Your task to perform on an android device: Add "razer blade" to the cart on ebay.com Image 0: 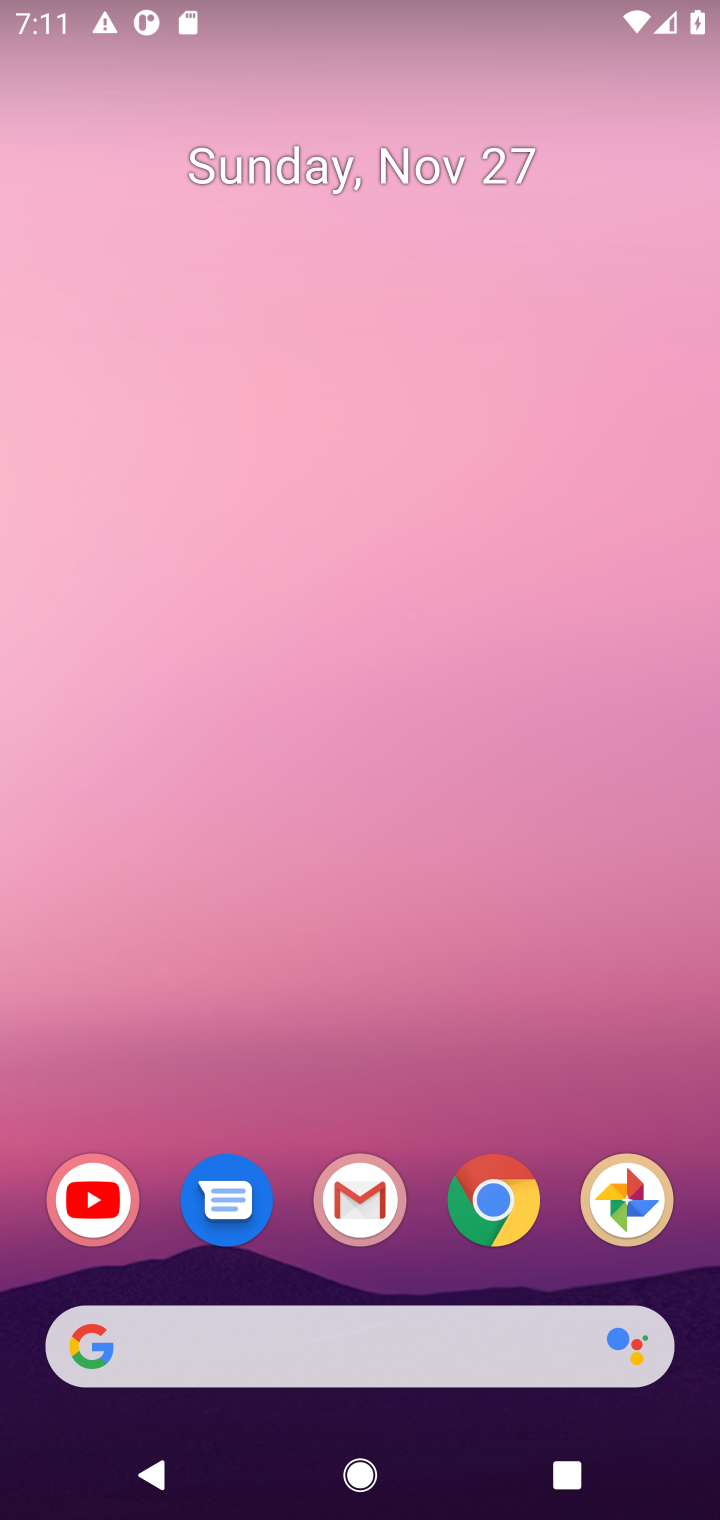
Step 0: click (493, 1201)
Your task to perform on an android device: Add "razer blade" to the cart on ebay.com Image 1: 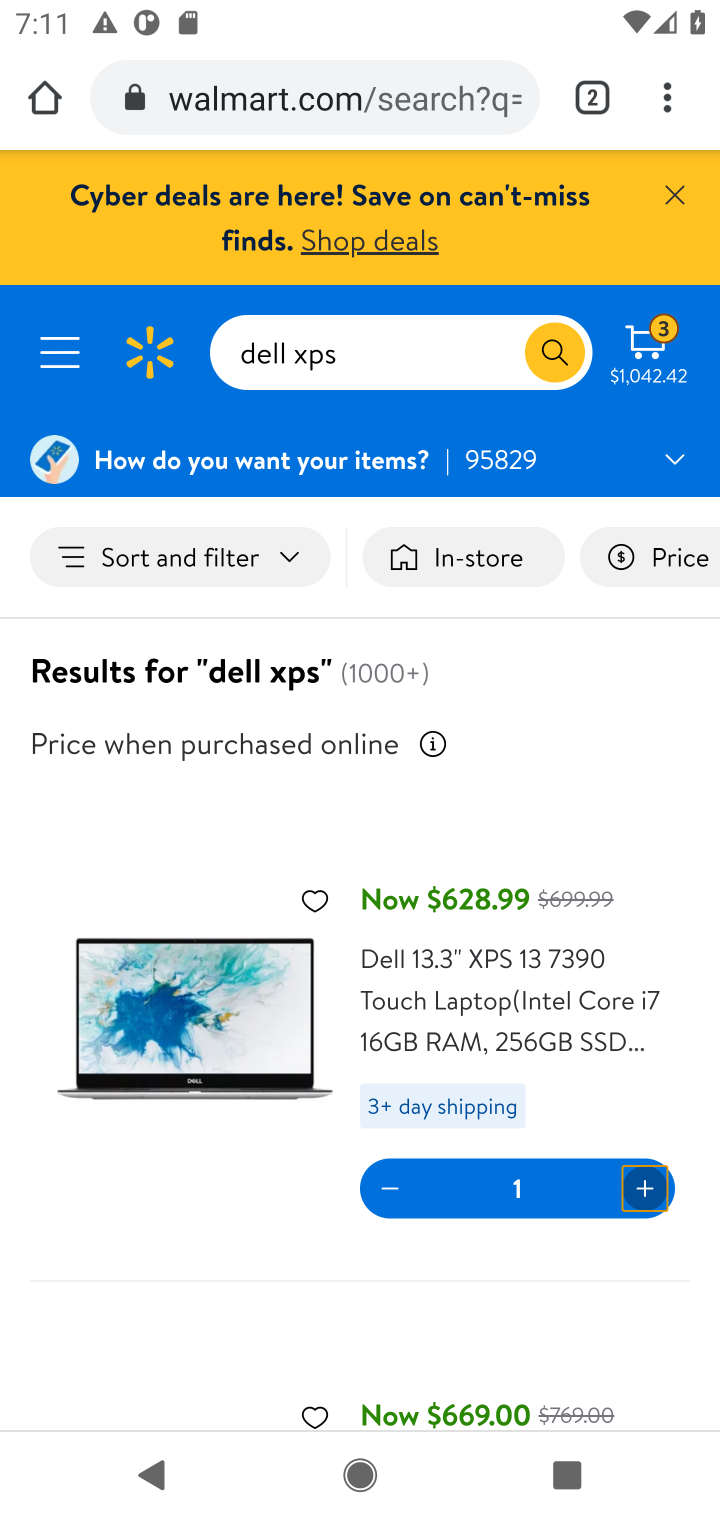
Step 1: click (278, 97)
Your task to perform on an android device: Add "razer blade" to the cart on ebay.com Image 2: 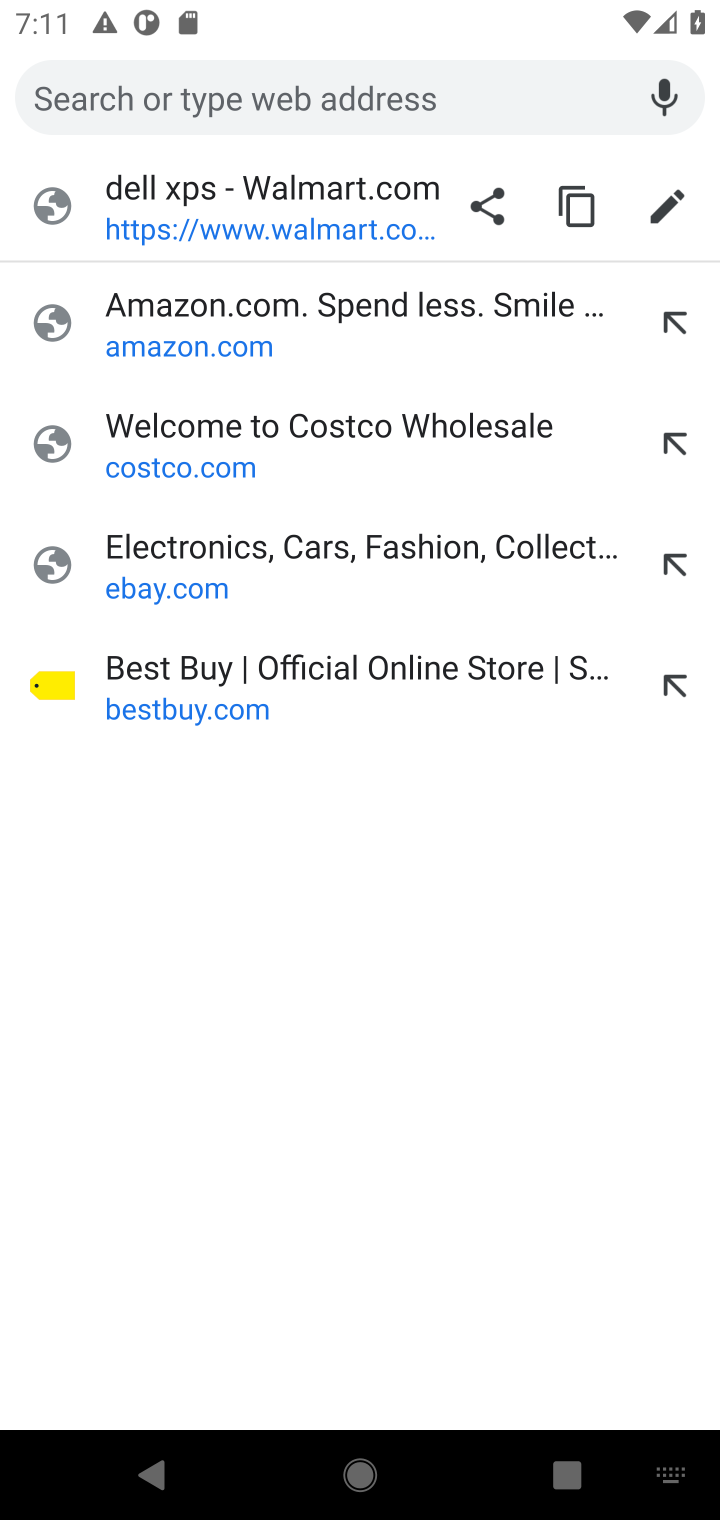
Step 2: click (130, 561)
Your task to perform on an android device: Add "razer blade" to the cart on ebay.com Image 3: 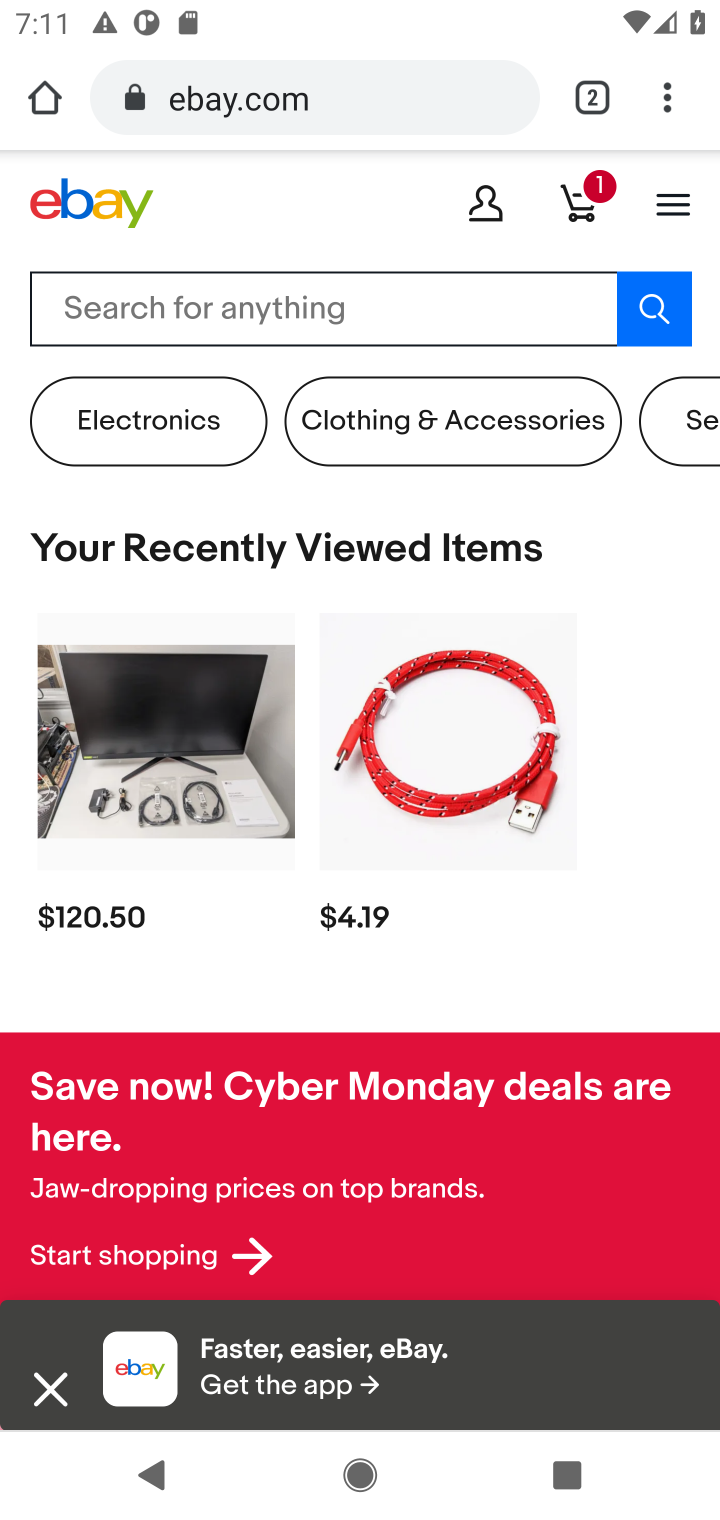
Step 3: click (123, 294)
Your task to perform on an android device: Add "razer blade" to the cart on ebay.com Image 4: 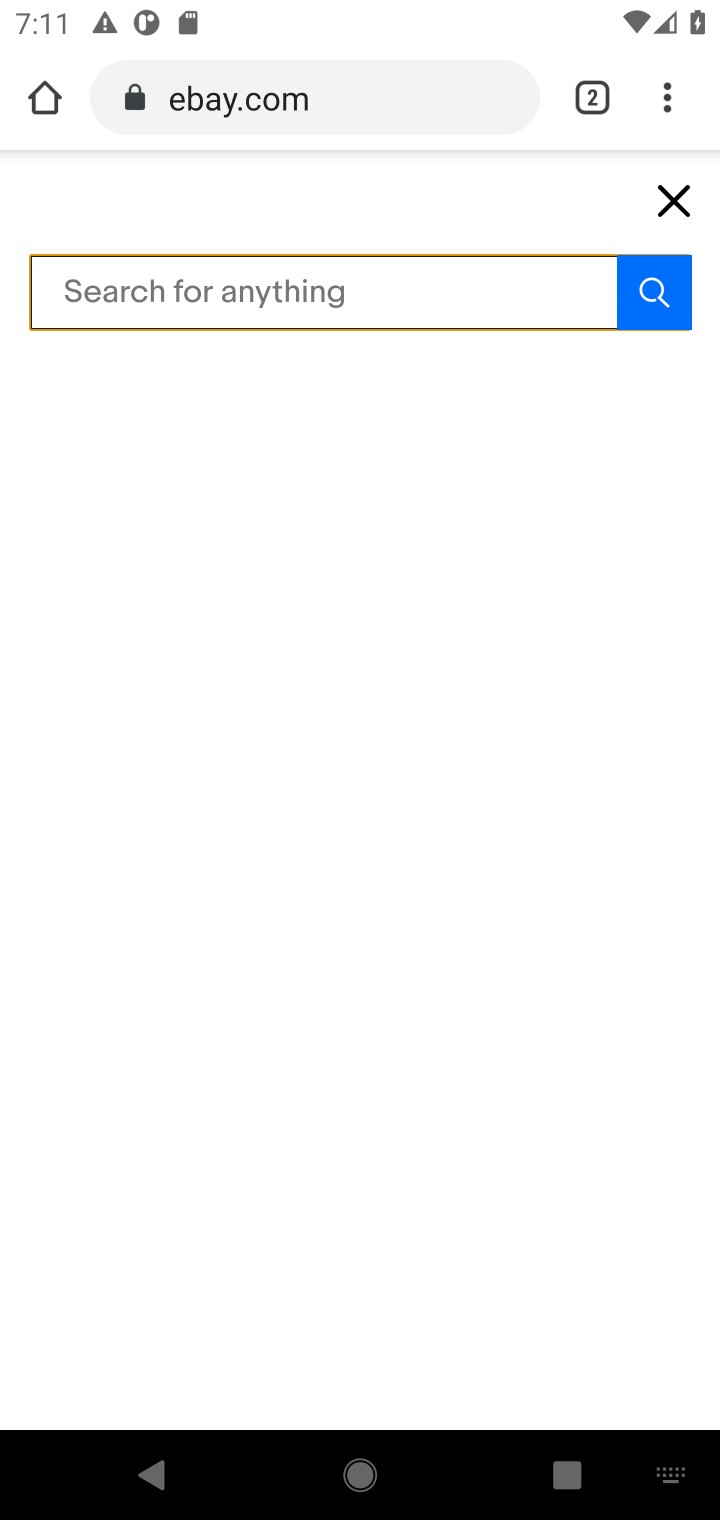
Step 4: type "razer blade"
Your task to perform on an android device: Add "razer blade" to the cart on ebay.com Image 5: 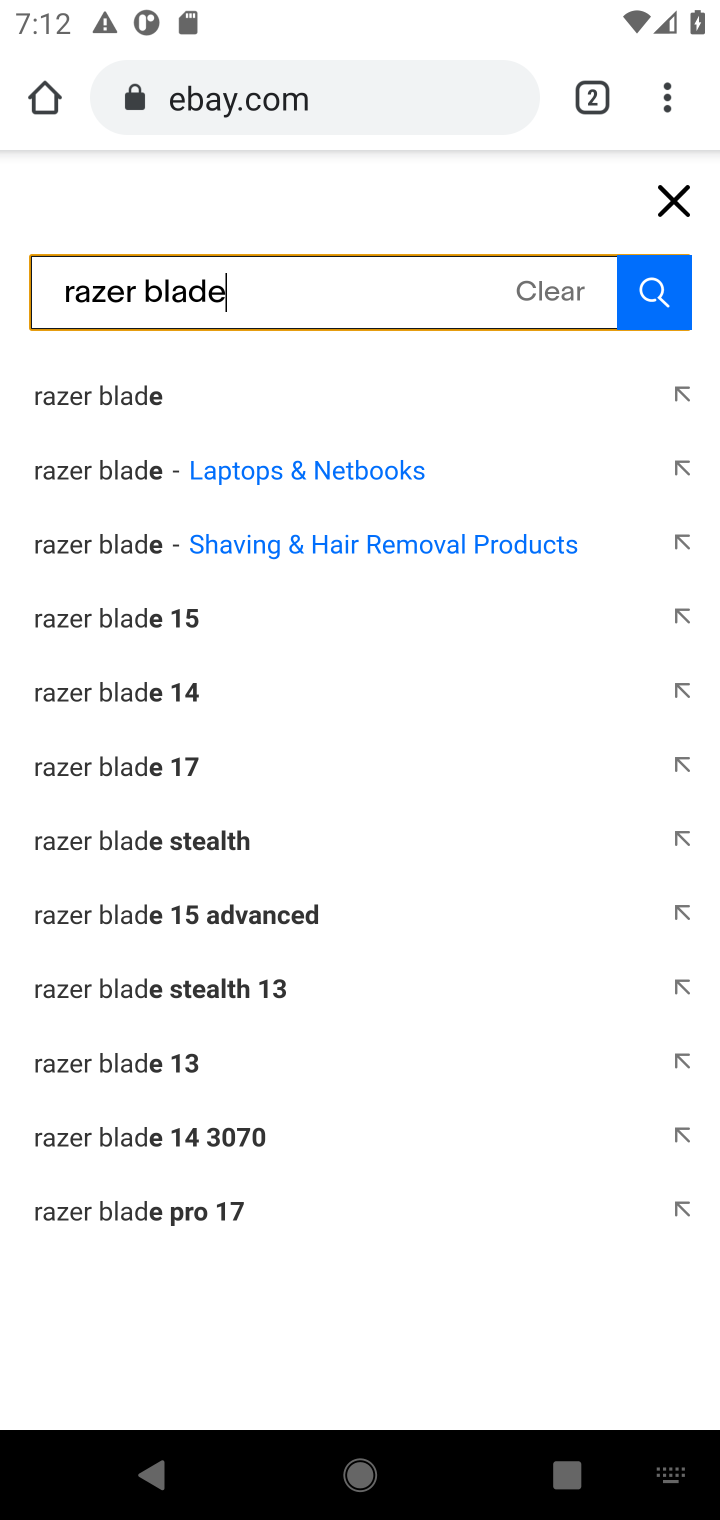
Step 5: click (63, 409)
Your task to perform on an android device: Add "razer blade" to the cart on ebay.com Image 6: 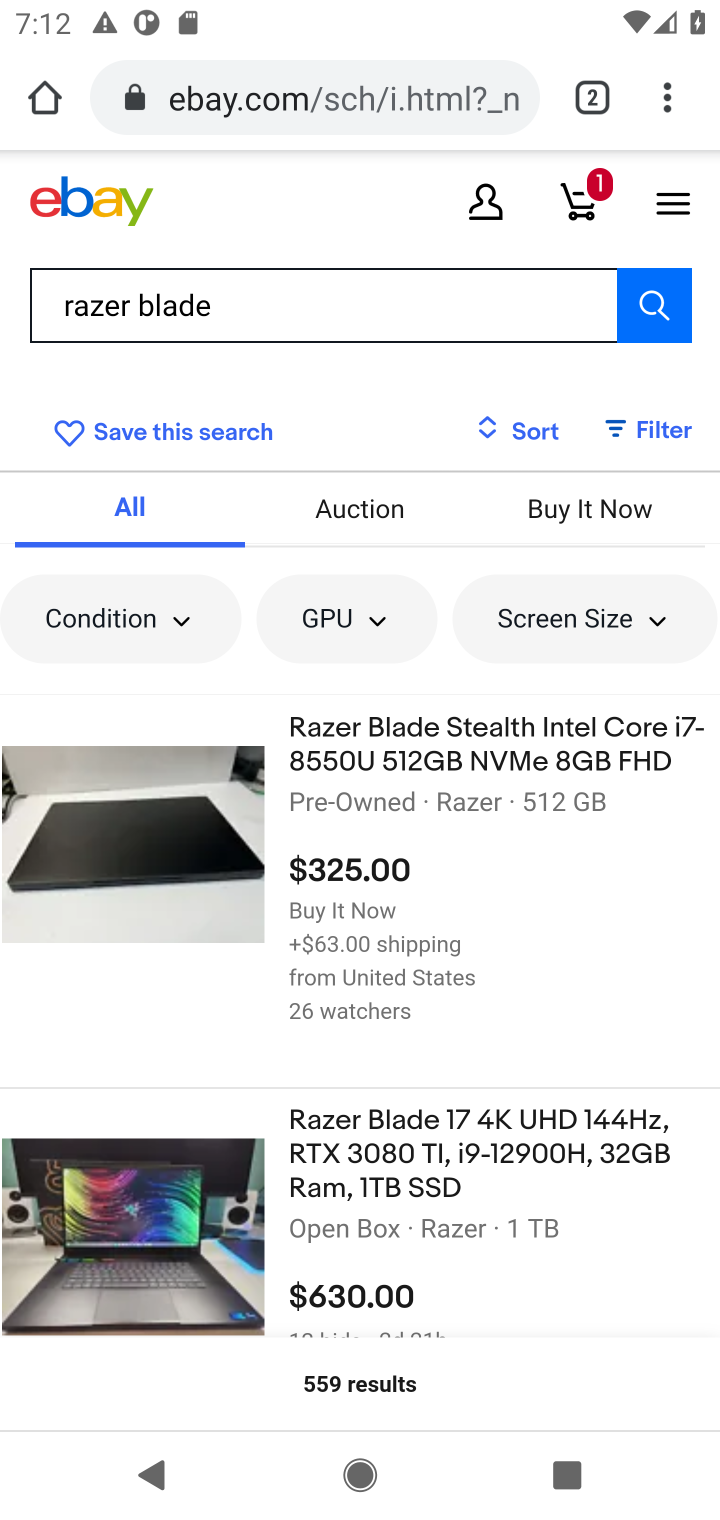
Step 6: click (145, 858)
Your task to perform on an android device: Add "razer blade" to the cart on ebay.com Image 7: 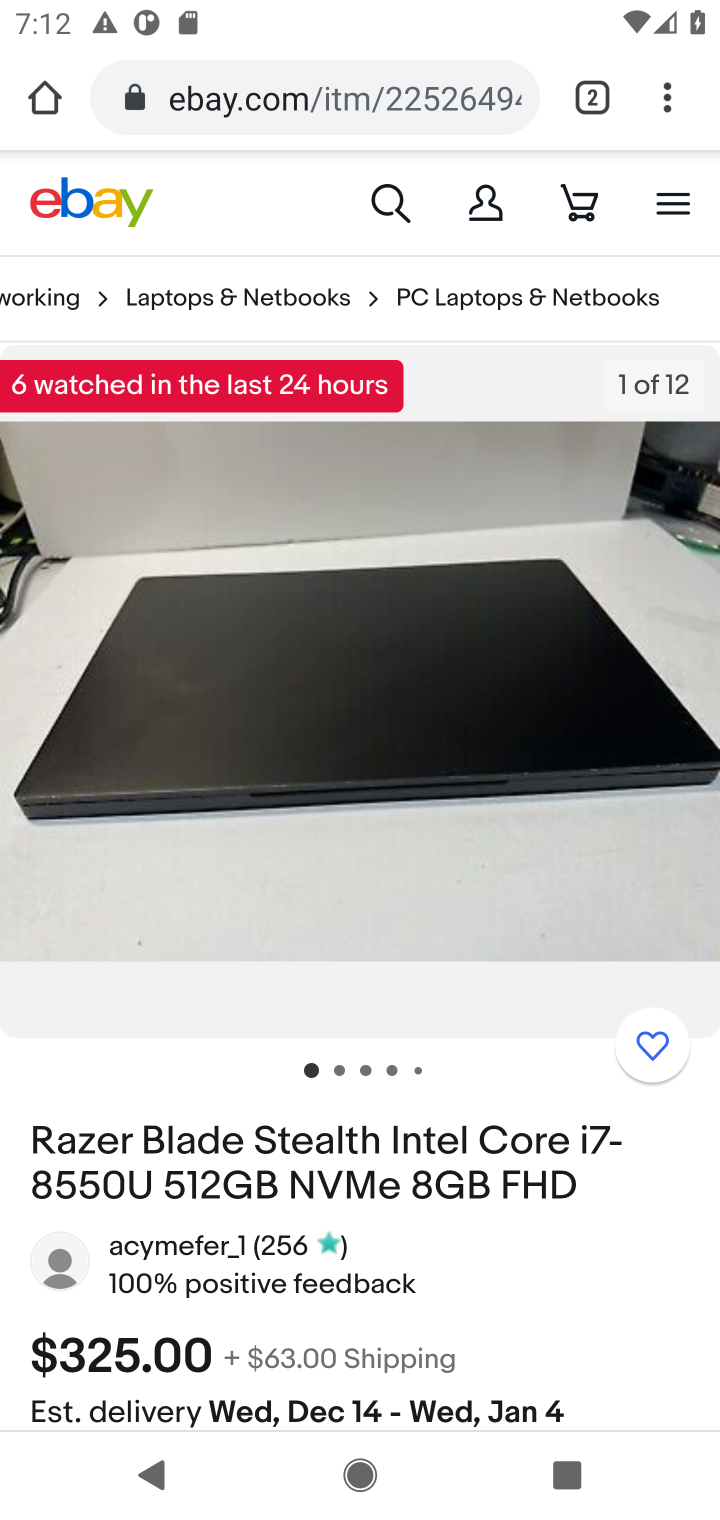
Step 7: drag from (247, 1021) to (186, 436)
Your task to perform on an android device: Add "razer blade" to the cart on ebay.com Image 8: 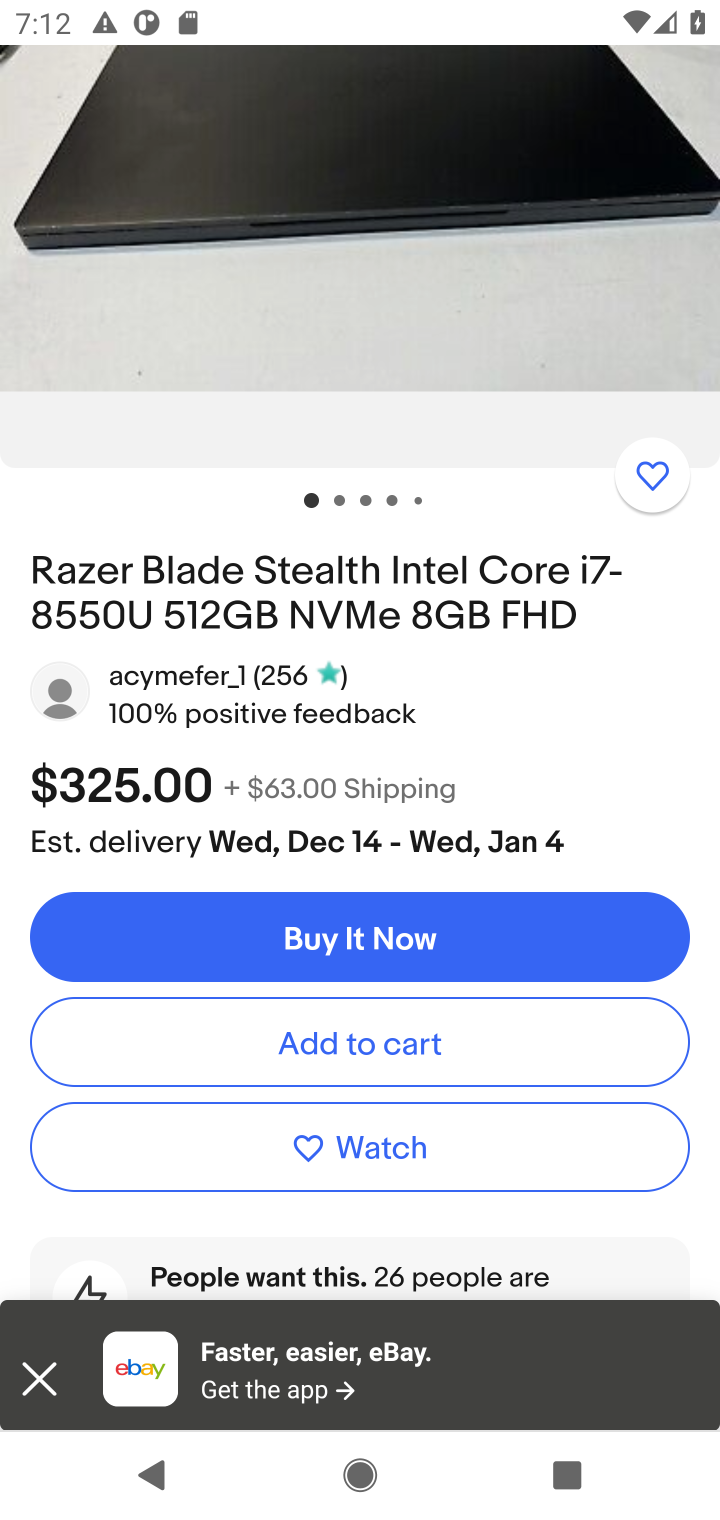
Step 8: click (292, 1038)
Your task to perform on an android device: Add "razer blade" to the cart on ebay.com Image 9: 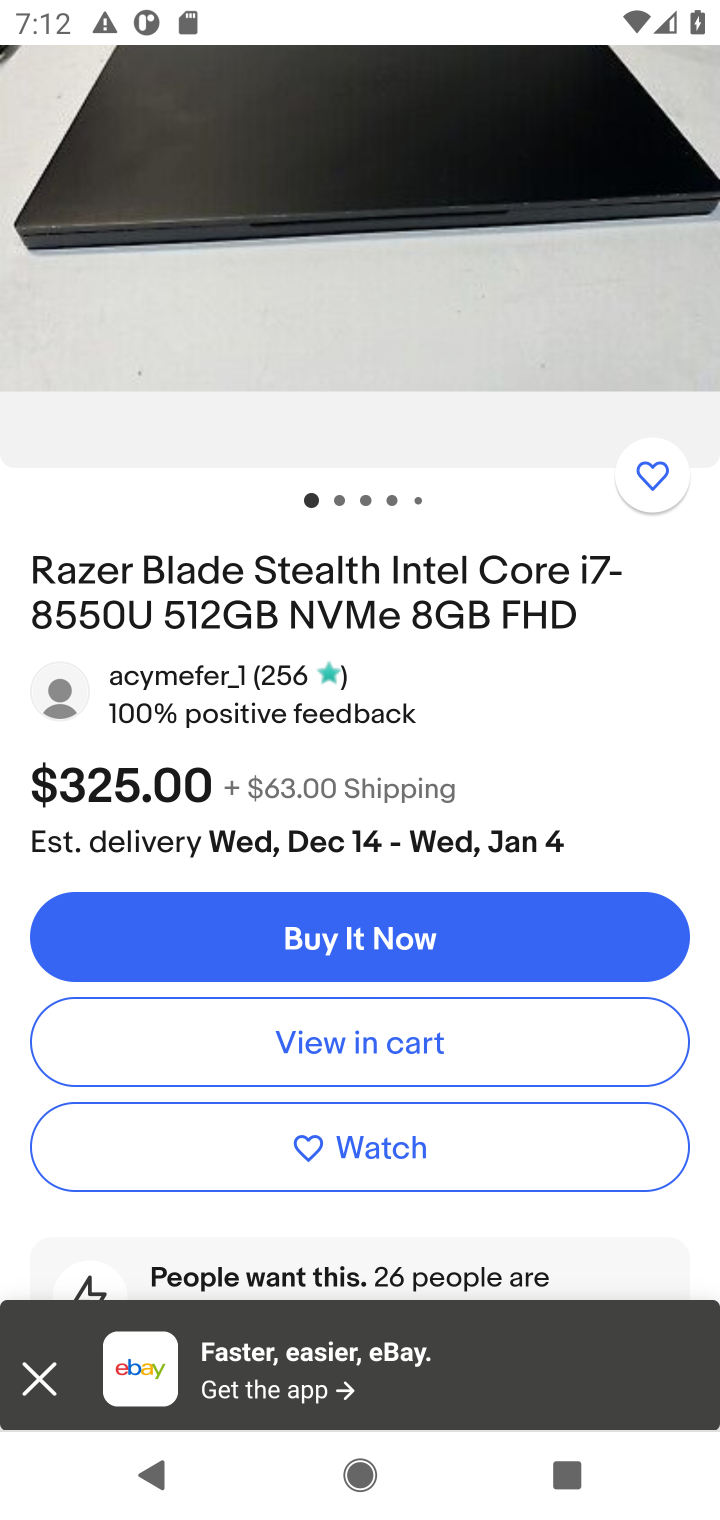
Step 9: task complete